Your task to perform on an android device: Open calendar and show me the second week of next month Image 0: 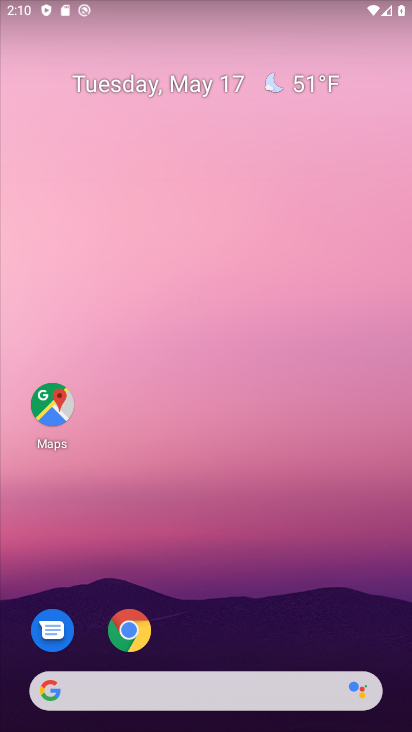
Step 0: drag from (236, 641) to (256, 12)
Your task to perform on an android device: Open calendar and show me the second week of next month Image 1: 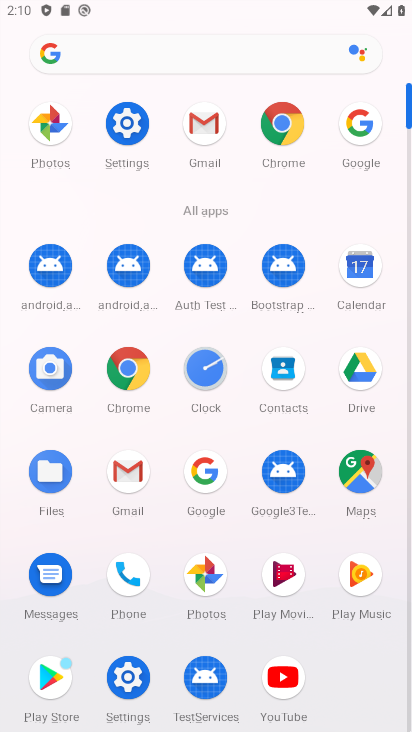
Step 1: click (367, 300)
Your task to perform on an android device: Open calendar and show me the second week of next month Image 2: 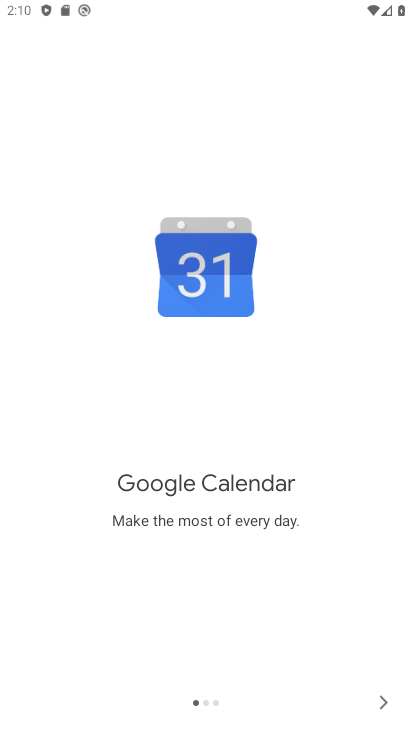
Step 2: click (385, 704)
Your task to perform on an android device: Open calendar and show me the second week of next month Image 3: 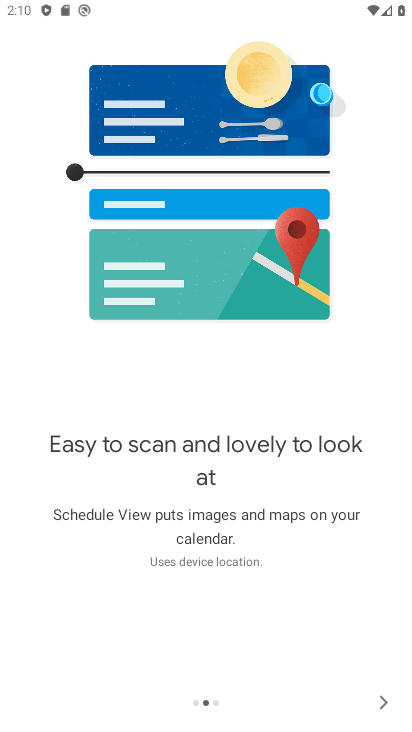
Step 3: click (382, 700)
Your task to perform on an android device: Open calendar and show me the second week of next month Image 4: 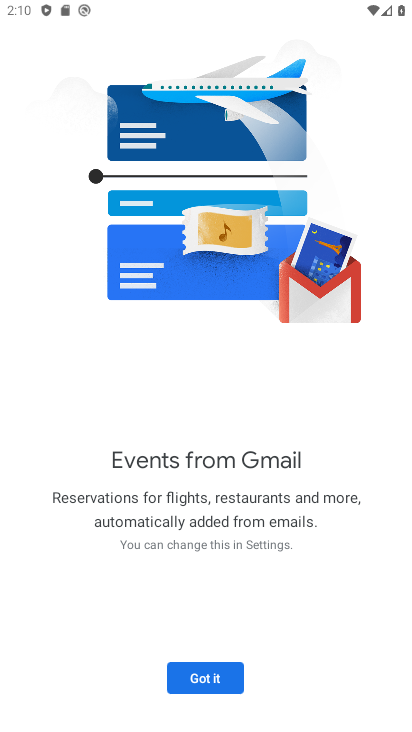
Step 4: click (200, 676)
Your task to perform on an android device: Open calendar and show me the second week of next month Image 5: 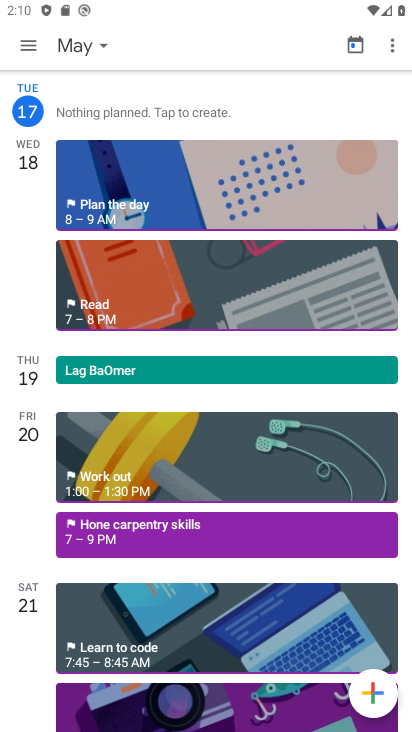
Step 5: click (31, 44)
Your task to perform on an android device: Open calendar and show me the second week of next month Image 6: 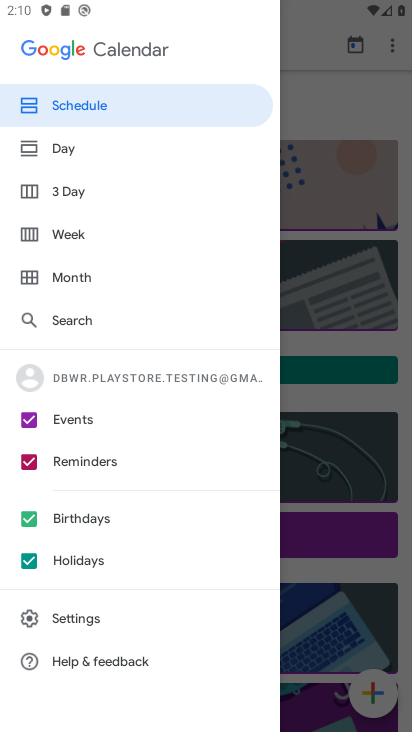
Step 6: click (84, 243)
Your task to perform on an android device: Open calendar and show me the second week of next month Image 7: 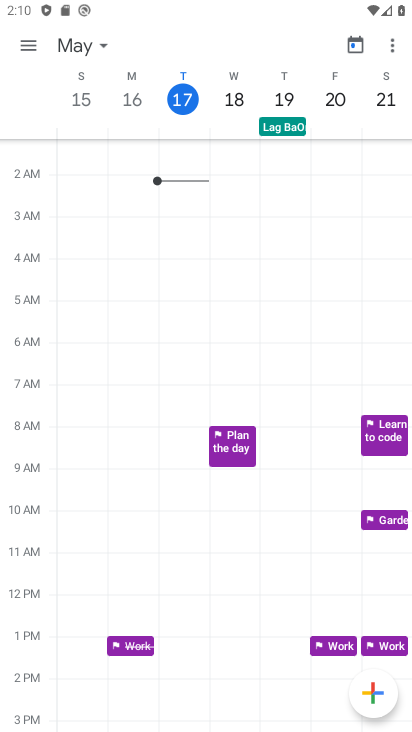
Step 7: click (81, 51)
Your task to perform on an android device: Open calendar and show me the second week of next month Image 8: 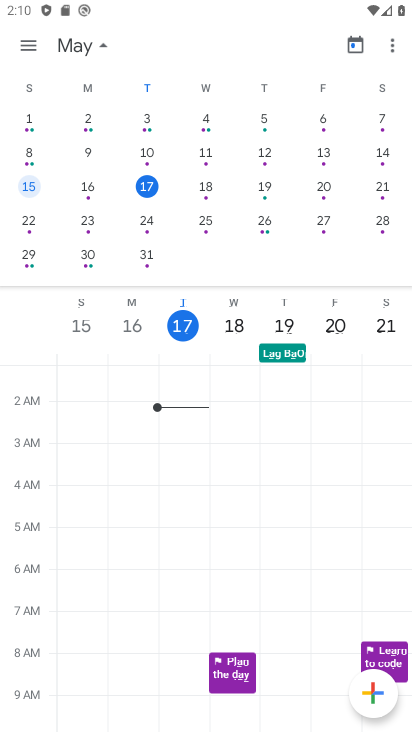
Step 8: drag from (310, 185) to (61, 167)
Your task to perform on an android device: Open calendar and show me the second week of next month Image 9: 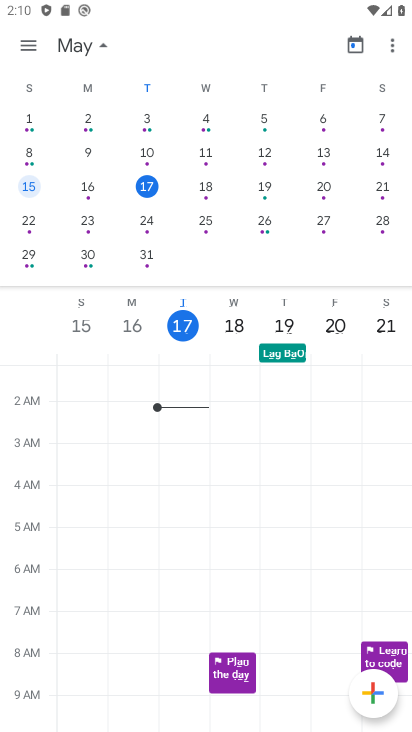
Step 9: drag from (364, 173) to (12, 171)
Your task to perform on an android device: Open calendar and show me the second week of next month Image 10: 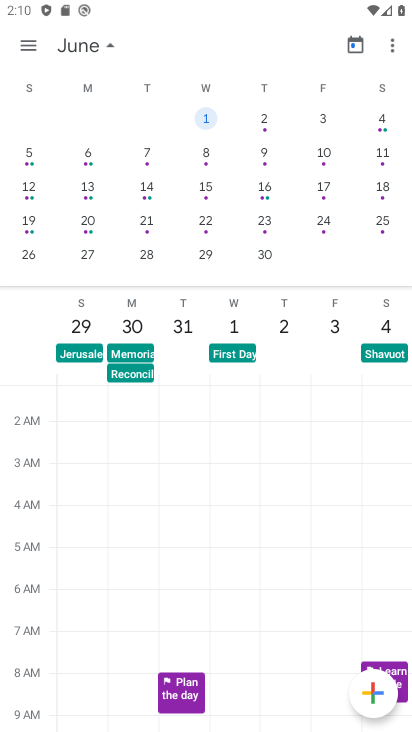
Step 10: click (29, 189)
Your task to perform on an android device: Open calendar and show me the second week of next month Image 11: 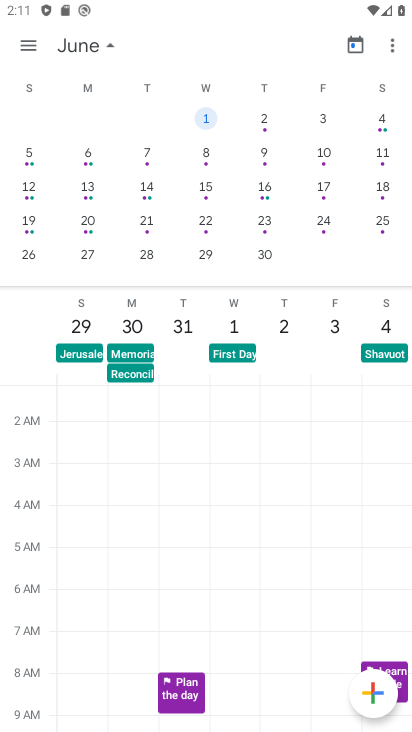
Step 11: click (77, 49)
Your task to perform on an android device: Open calendar and show me the second week of next month Image 12: 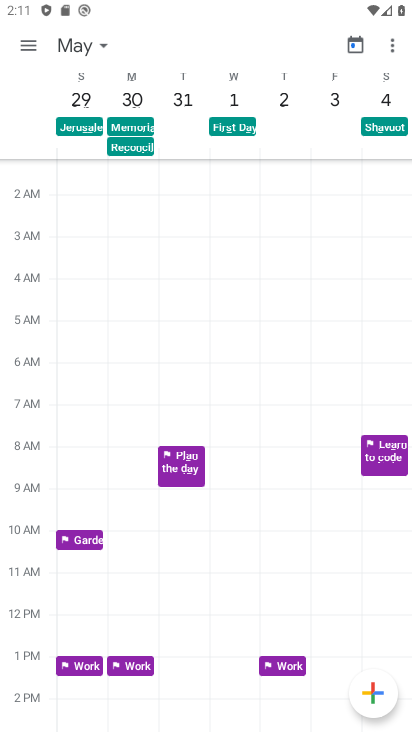
Step 12: click (77, 49)
Your task to perform on an android device: Open calendar and show me the second week of next month Image 13: 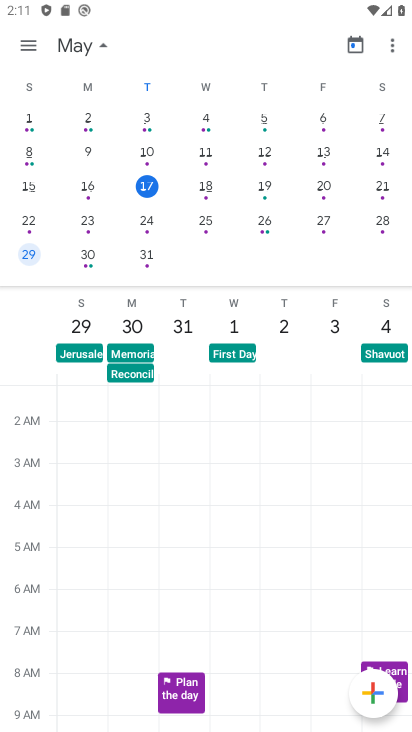
Step 13: drag from (280, 153) to (32, 133)
Your task to perform on an android device: Open calendar and show me the second week of next month Image 14: 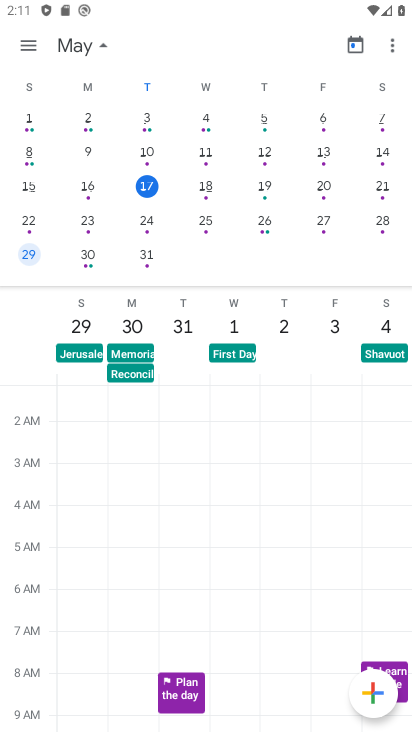
Step 14: click (58, 177)
Your task to perform on an android device: Open calendar and show me the second week of next month Image 15: 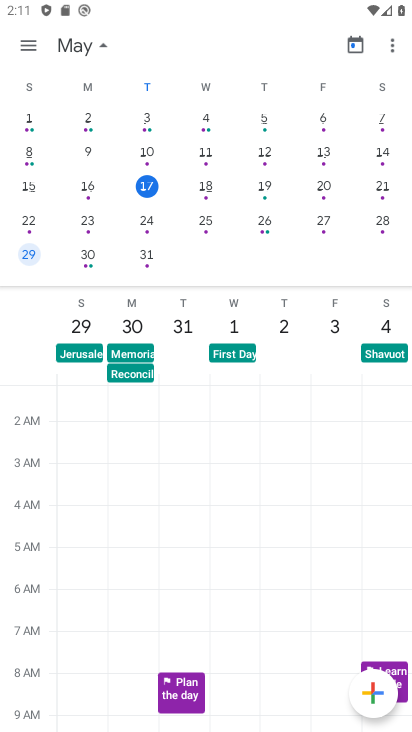
Step 15: drag from (346, 174) to (51, 153)
Your task to perform on an android device: Open calendar and show me the second week of next month Image 16: 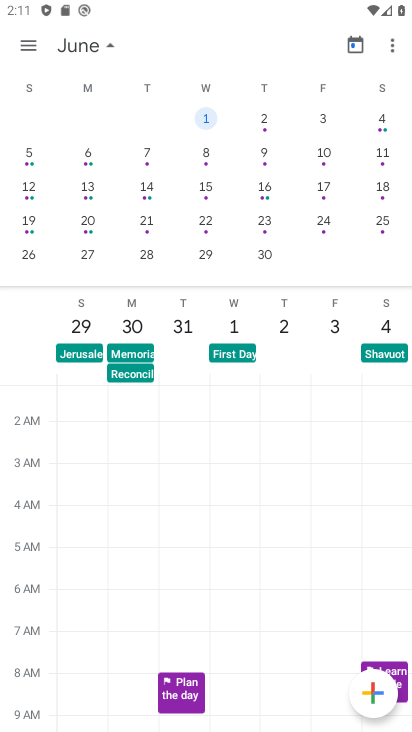
Step 16: click (38, 157)
Your task to perform on an android device: Open calendar and show me the second week of next month Image 17: 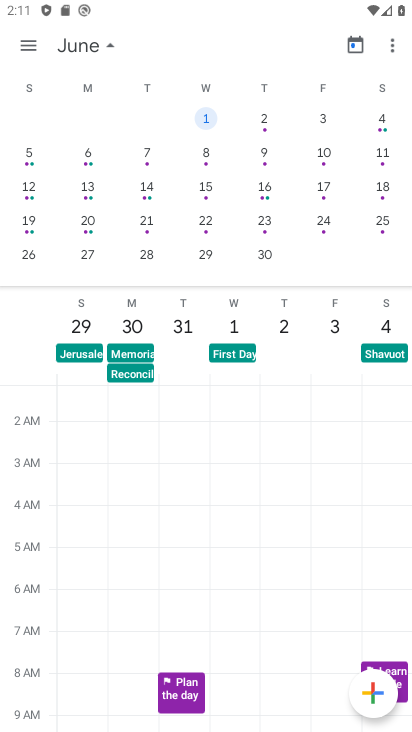
Step 17: click (27, 161)
Your task to perform on an android device: Open calendar and show me the second week of next month Image 18: 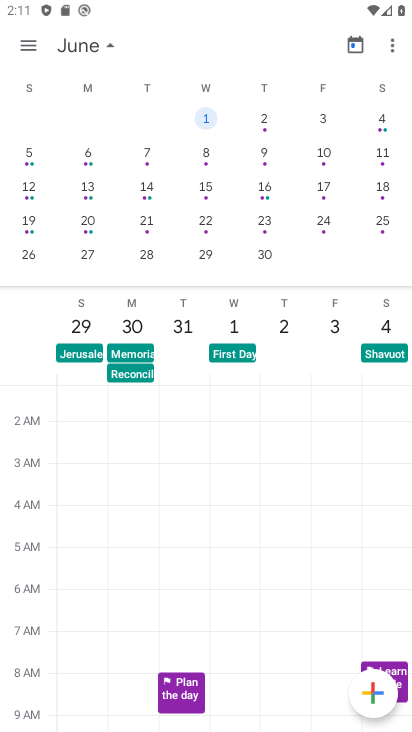
Step 18: click (29, 158)
Your task to perform on an android device: Open calendar and show me the second week of next month Image 19: 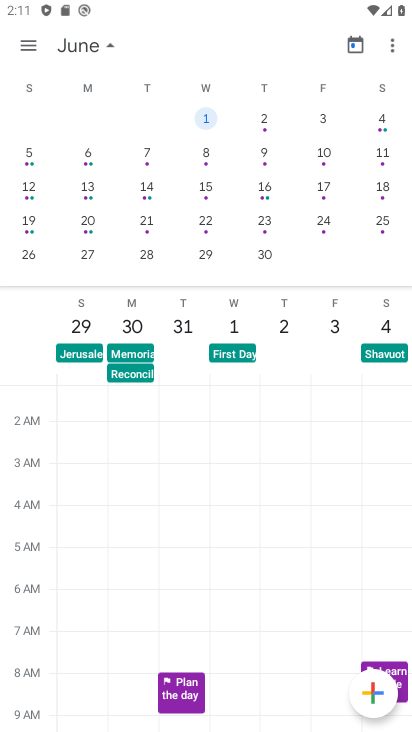
Step 19: click (33, 154)
Your task to perform on an android device: Open calendar and show me the second week of next month Image 20: 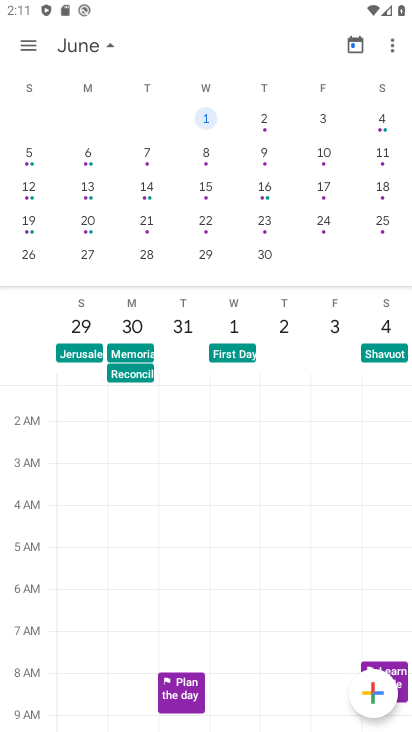
Step 20: click (33, 157)
Your task to perform on an android device: Open calendar and show me the second week of next month Image 21: 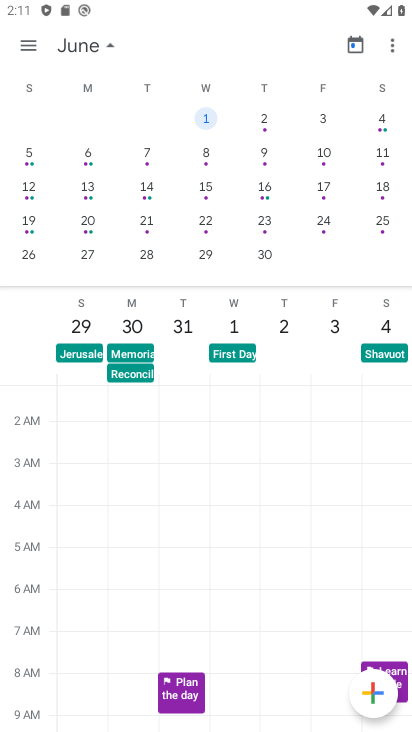
Step 21: click (33, 157)
Your task to perform on an android device: Open calendar and show me the second week of next month Image 22: 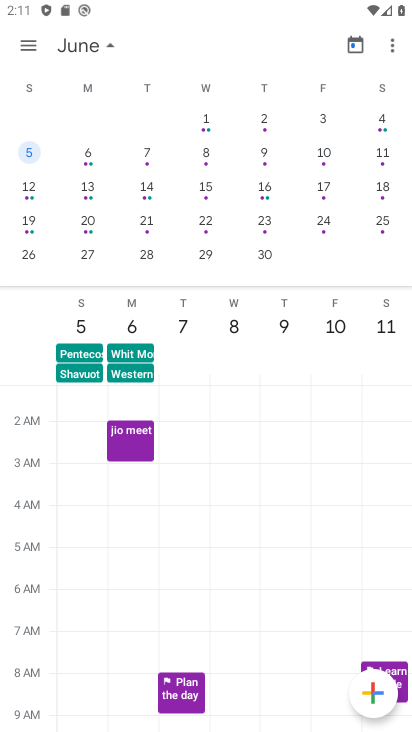
Step 22: drag from (253, 476) to (243, 136)
Your task to perform on an android device: Open calendar and show me the second week of next month Image 23: 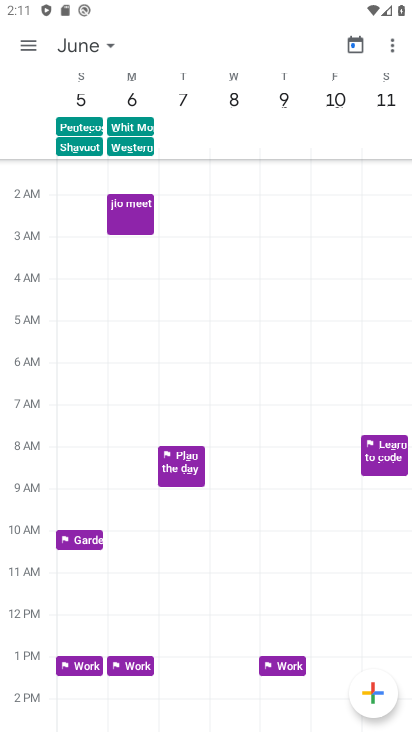
Step 23: drag from (313, 196) to (303, 153)
Your task to perform on an android device: Open calendar and show me the second week of next month Image 24: 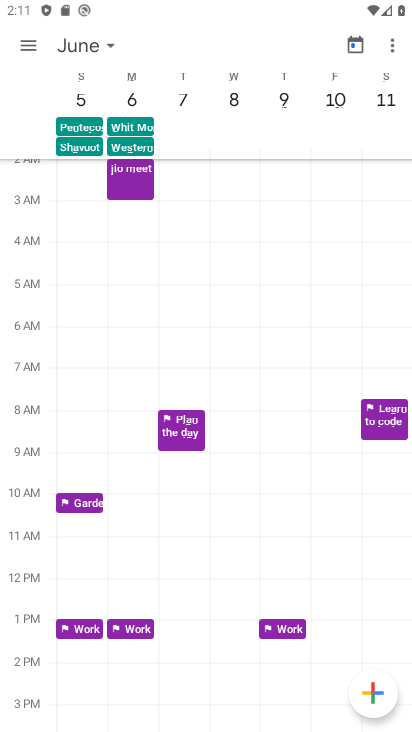
Step 24: drag from (220, 637) to (231, 173)
Your task to perform on an android device: Open calendar and show me the second week of next month Image 25: 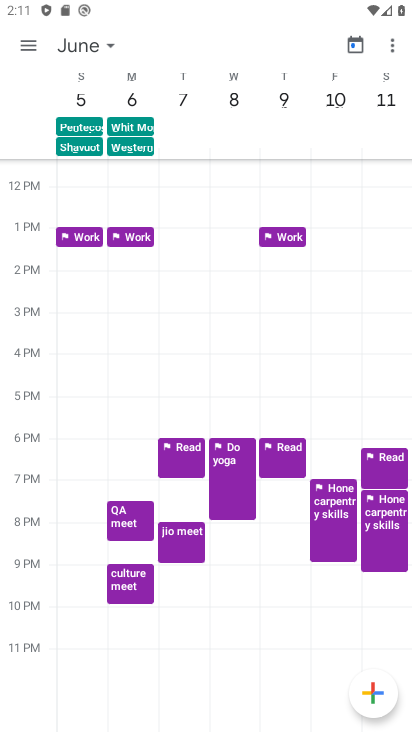
Step 25: click (304, 133)
Your task to perform on an android device: Open calendar and show me the second week of next month Image 26: 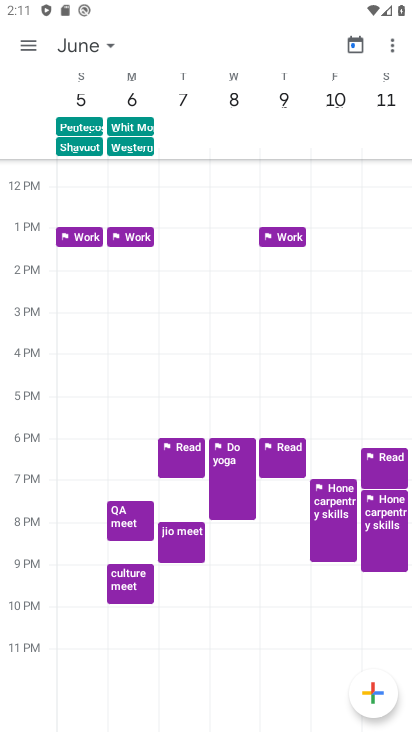
Step 26: click (274, 178)
Your task to perform on an android device: Open calendar and show me the second week of next month Image 27: 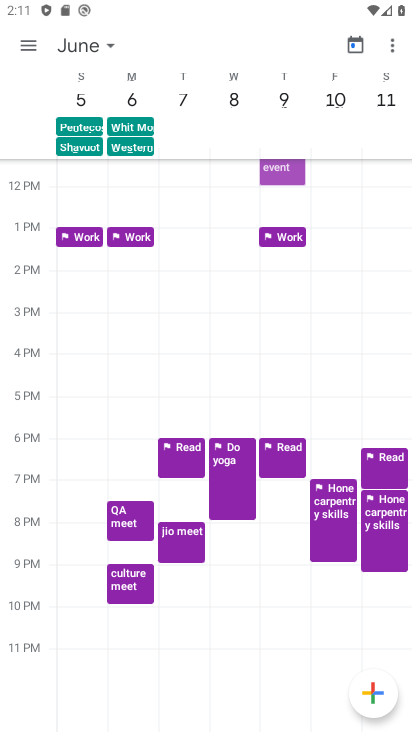
Step 27: task complete